Your task to perform on an android device: toggle airplane mode Image 0: 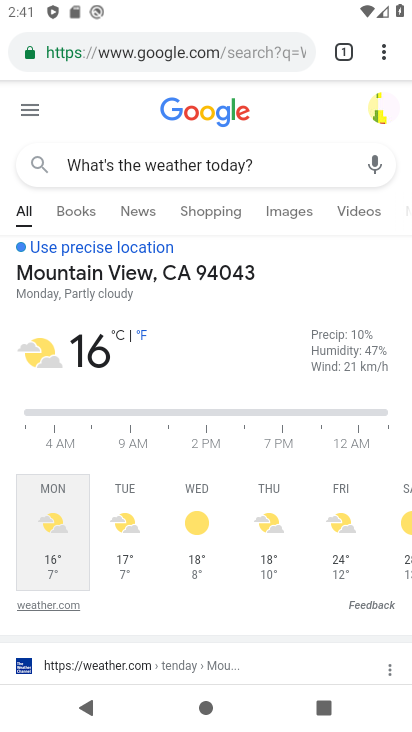
Step 0: press back button
Your task to perform on an android device: toggle airplane mode Image 1: 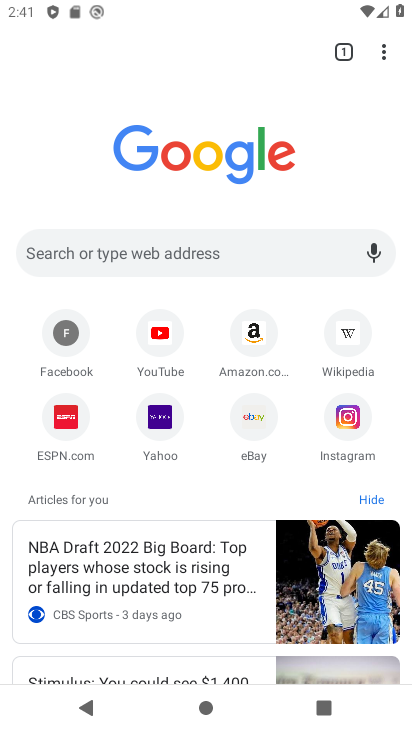
Step 1: press back button
Your task to perform on an android device: toggle airplane mode Image 2: 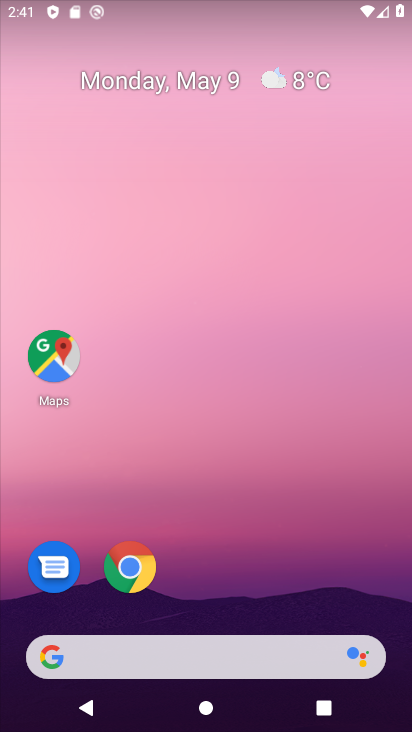
Step 2: drag from (244, 620) to (264, 49)
Your task to perform on an android device: toggle airplane mode Image 3: 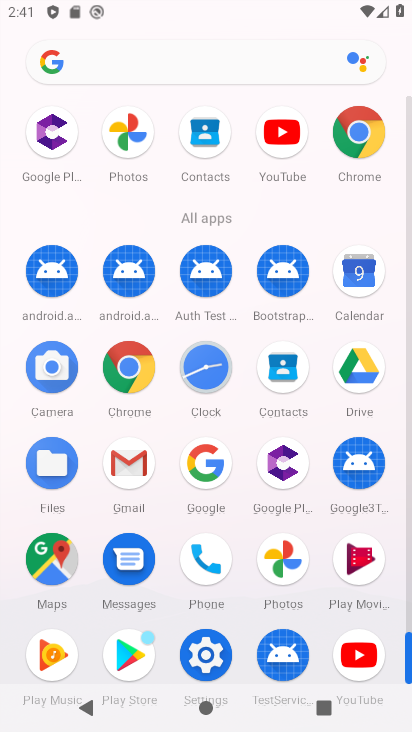
Step 3: drag from (2, 551) to (28, 147)
Your task to perform on an android device: toggle airplane mode Image 4: 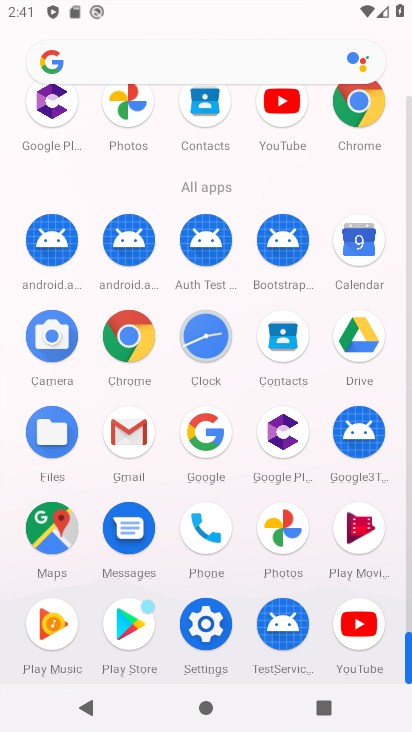
Step 4: drag from (19, 583) to (11, 289)
Your task to perform on an android device: toggle airplane mode Image 5: 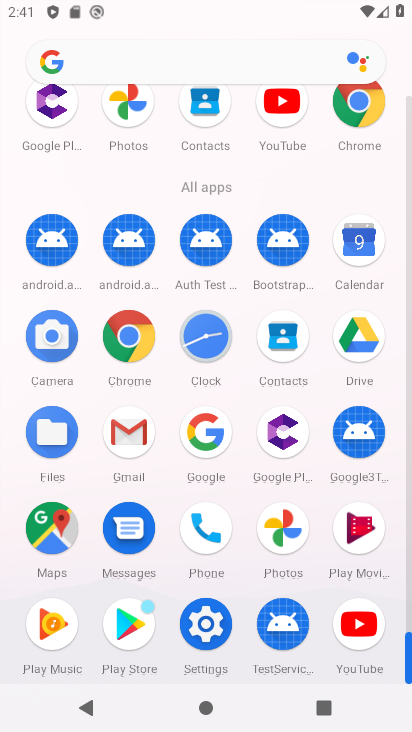
Step 5: click (205, 621)
Your task to perform on an android device: toggle airplane mode Image 6: 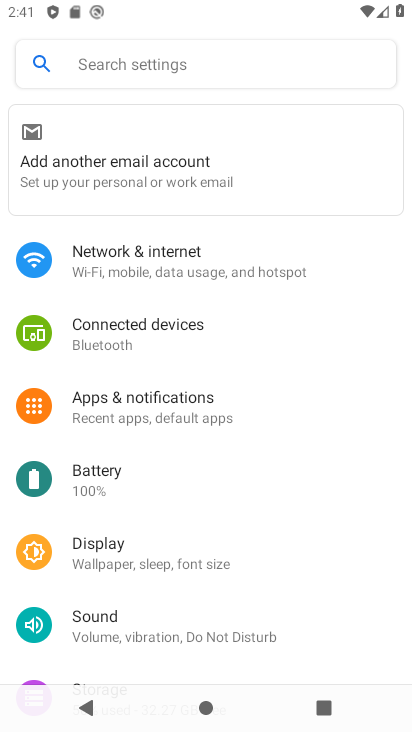
Step 6: drag from (375, 615) to (398, 240)
Your task to perform on an android device: toggle airplane mode Image 7: 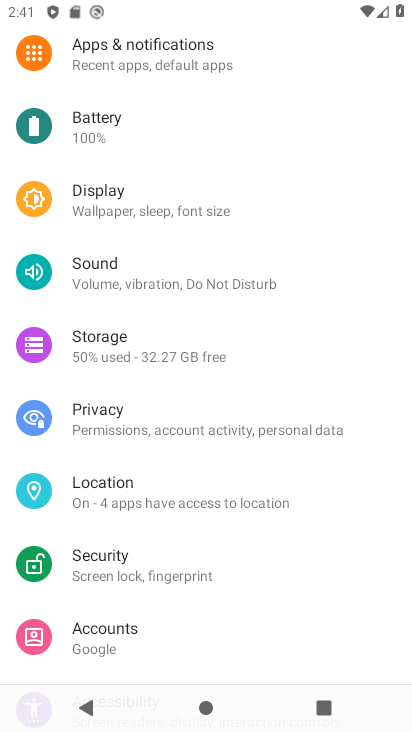
Step 7: drag from (352, 72) to (336, 528)
Your task to perform on an android device: toggle airplane mode Image 8: 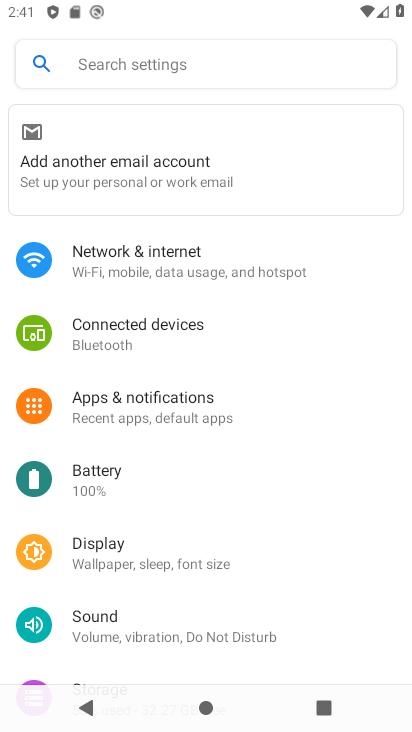
Step 8: click (216, 272)
Your task to perform on an android device: toggle airplane mode Image 9: 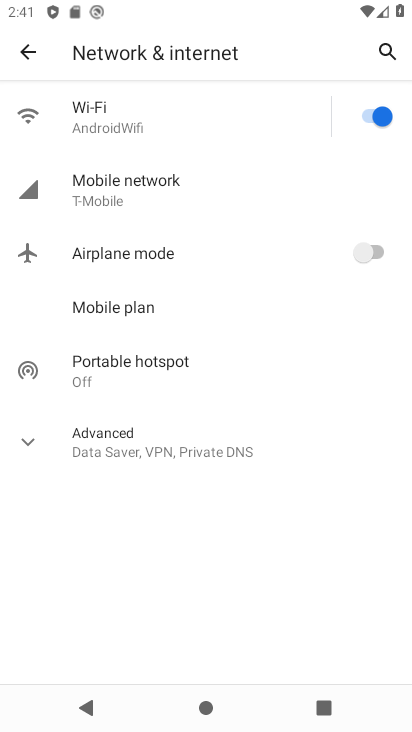
Step 9: click (35, 426)
Your task to perform on an android device: toggle airplane mode Image 10: 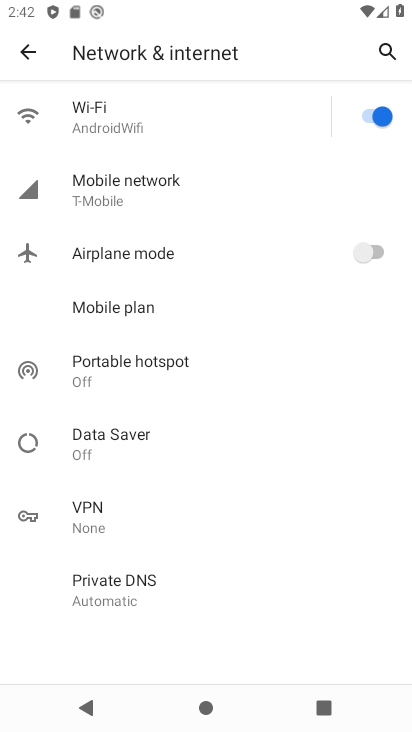
Step 10: click (377, 249)
Your task to perform on an android device: toggle airplane mode Image 11: 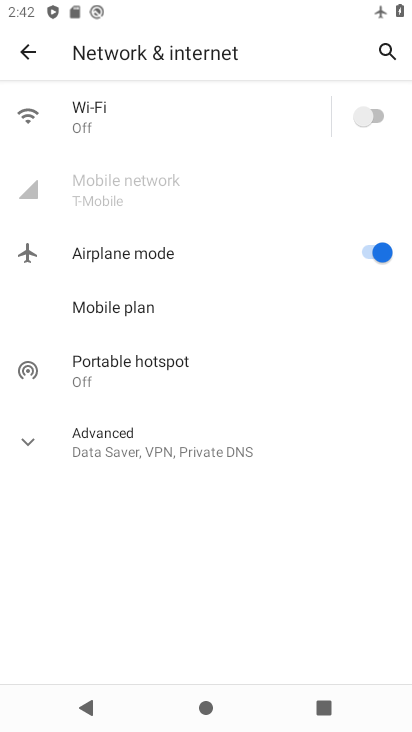
Step 11: task complete